Your task to perform on an android device: Search for logitech g910 on bestbuy, select the first entry, and add it to the cart. Image 0: 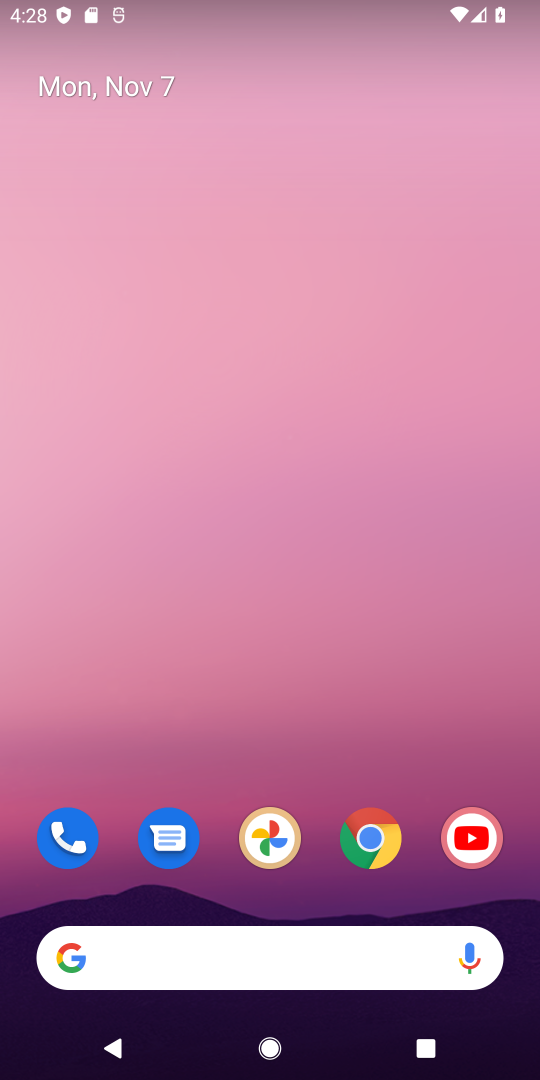
Step 0: click (361, 831)
Your task to perform on an android device: Search for logitech g910 on bestbuy, select the first entry, and add it to the cart. Image 1: 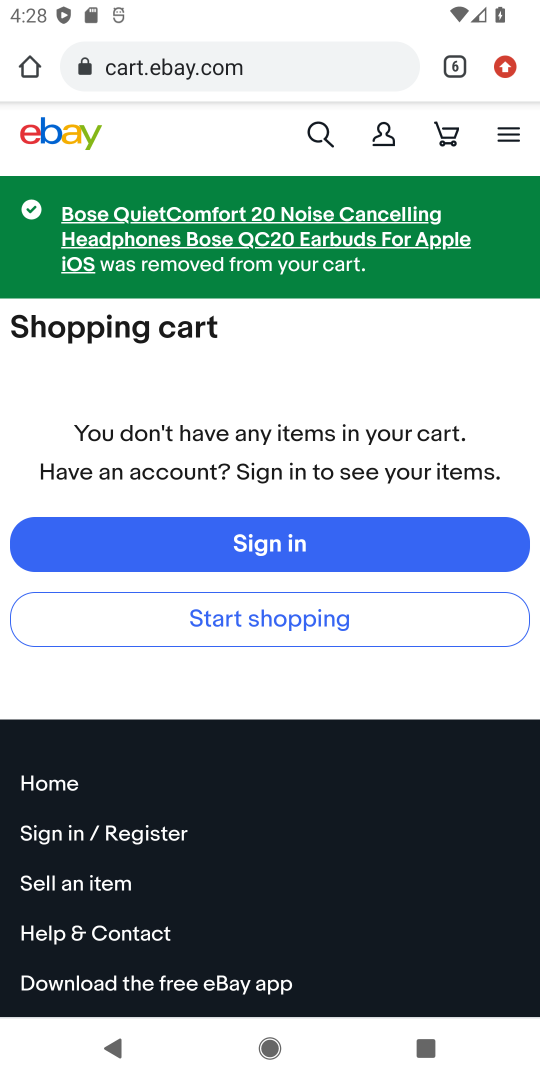
Step 1: click (458, 70)
Your task to perform on an android device: Search for logitech g910 on bestbuy, select the first entry, and add it to the cart. Image 2: 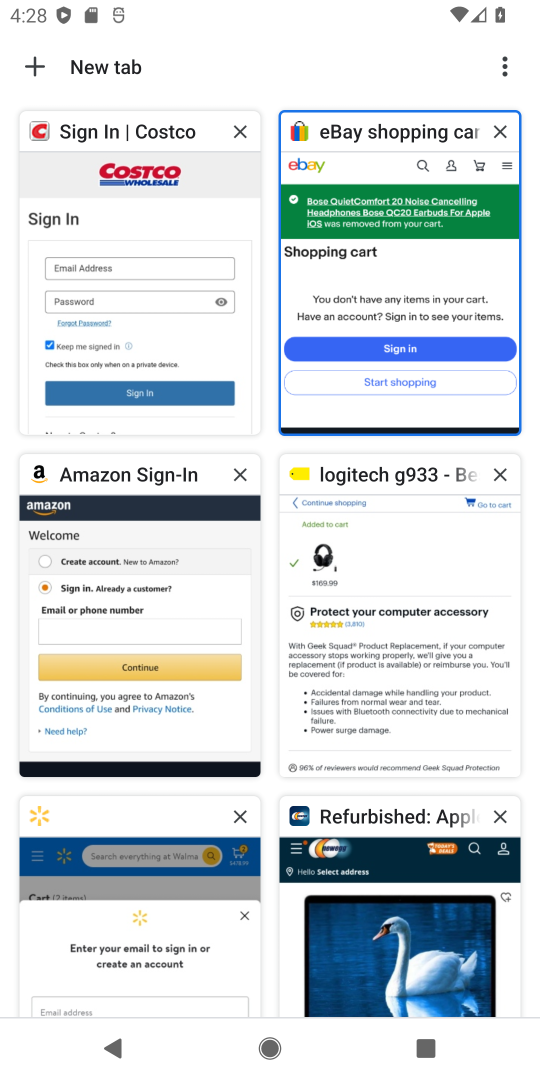
Step 2: click (406, 568)
Your task to perform on an android device: Search for logitech g910 on bestbuy, select the first entry, and add it to the cart. Image 3: 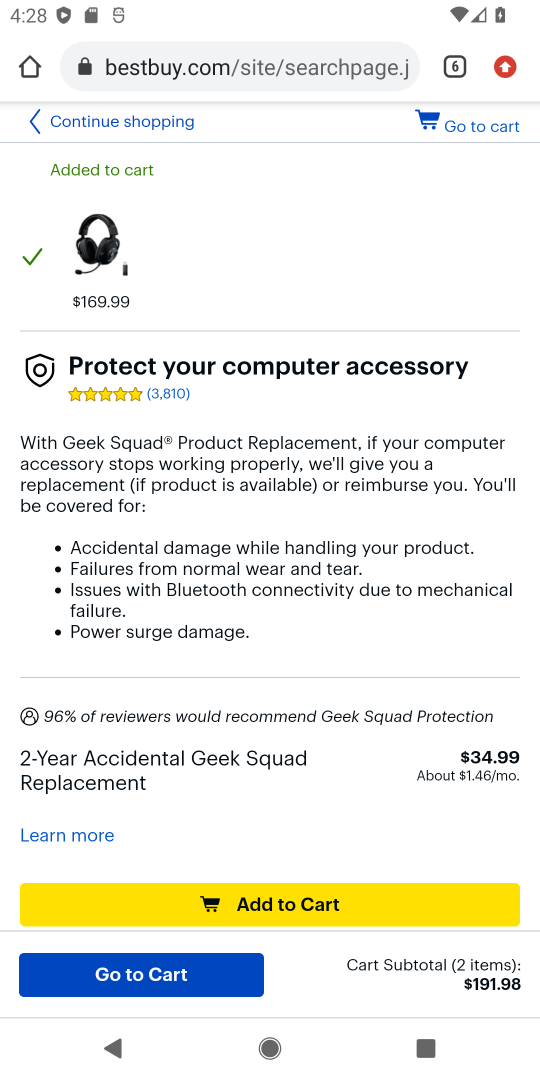
Step 3: click (104, 124)
Your task to perform on an android device: Search for logitech g910 on bestbuy, select the first entry, and add it to the cart. Image 4: 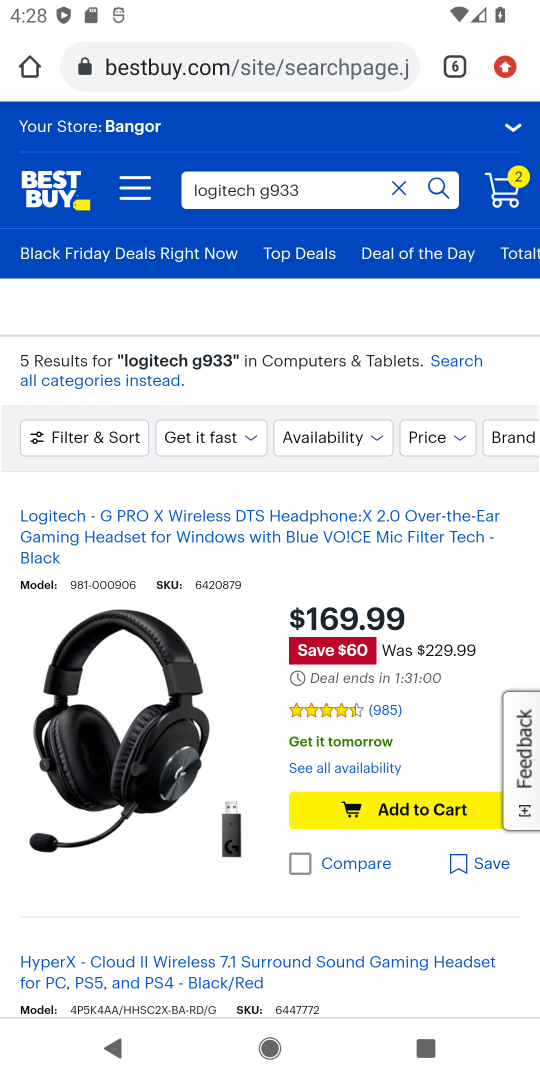
Step 4: click (405, 805)
Your task to perform on an android device: Search for logitech g910 on bestbuy, select the first entry, and add it to the cart. Image 5: 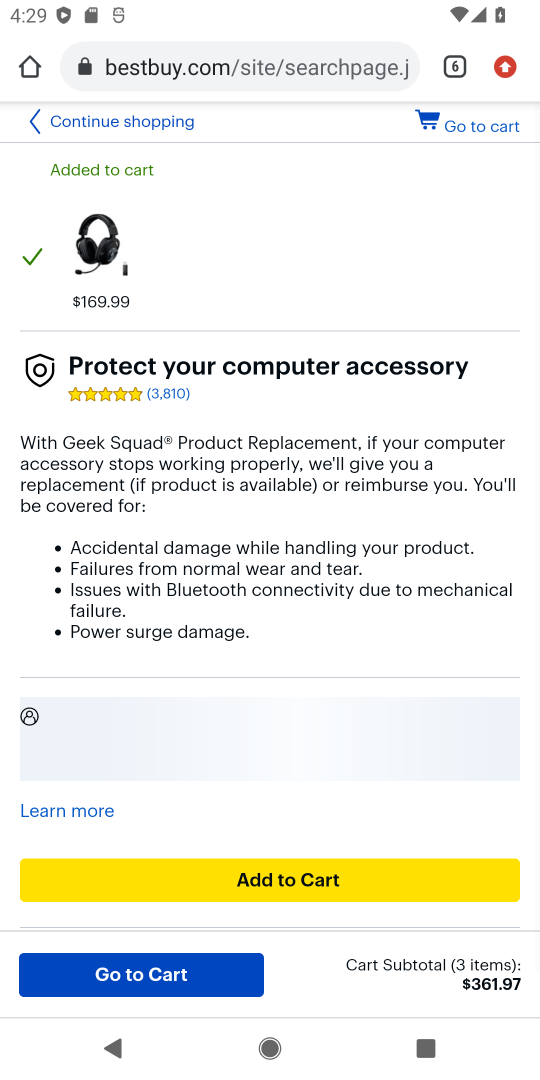
Step 5: task complete